Your task to perform on an android device: find photos in the google photos app Image 0: 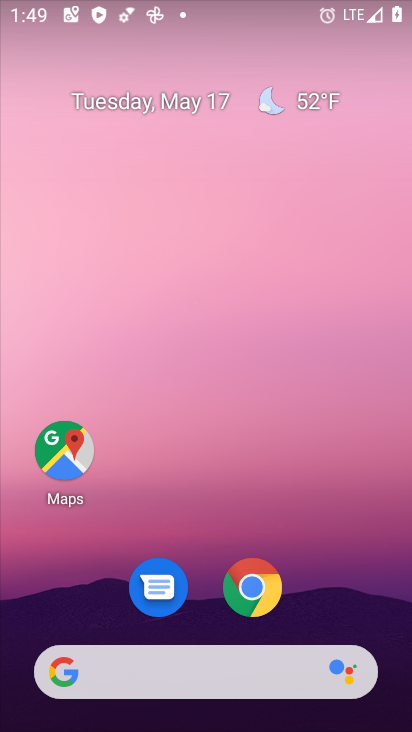
Step 0: drag from (371, 573) to (225, 88)
Your task to perform on an android device: find photos in the google photos app Image 1: 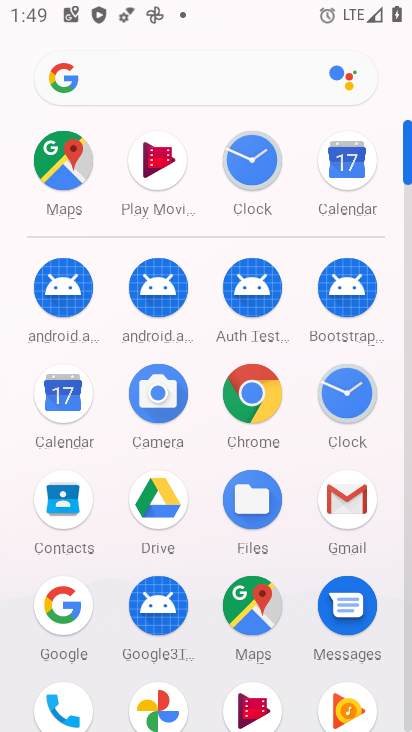
Step 1: click (174, 696)
Your task to perform on an android device: find photos in the google photos app Image 2: 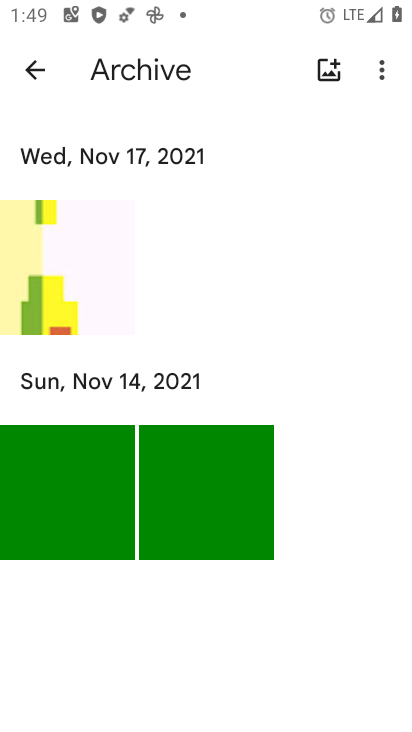
Step 2: task complete